Your task to perform on an android device: Open accessibility settings Image 0: 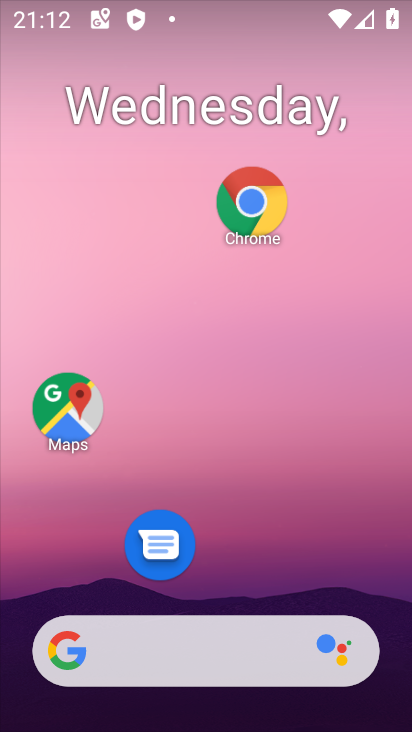
Step 0: drag from (224, 604) to (171, 152)
Your task to perform on an android device: Open accessibility settings Image 1: 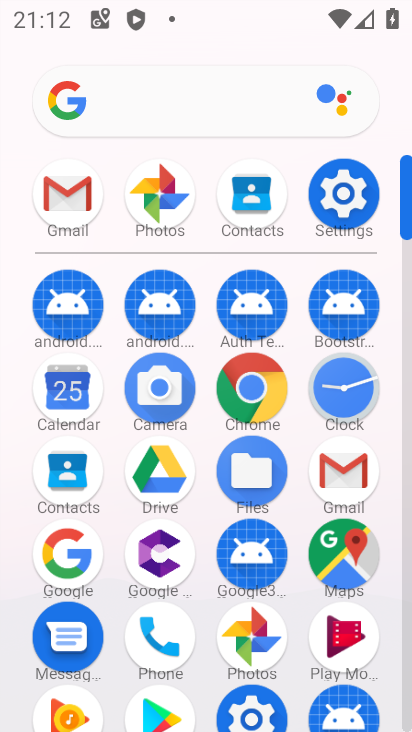
Step 1: click (337, 204)
Your task to perform on an android device: Open accessibility settings Image 2: 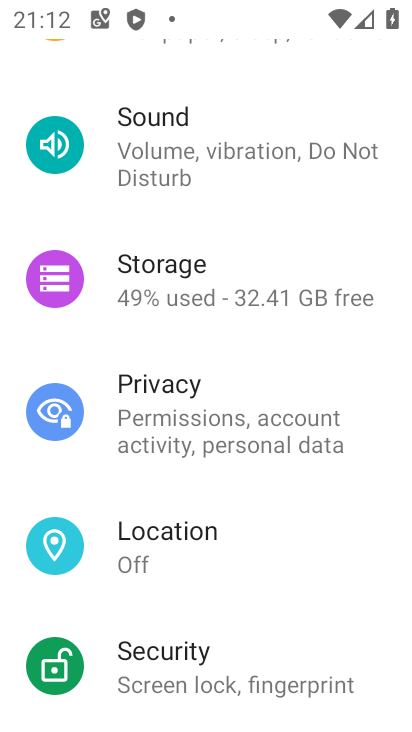
Step 2: drag from (195, 581) to (234, 205)
Your task to perform on an android device: Open accessibility settings Image 3: 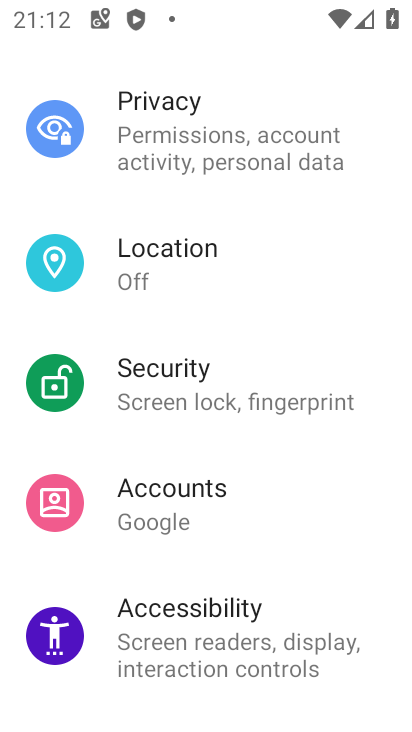
Step 3: click (152, 627)
Your task to perform on an android device: Open accessibility settings Image 4: 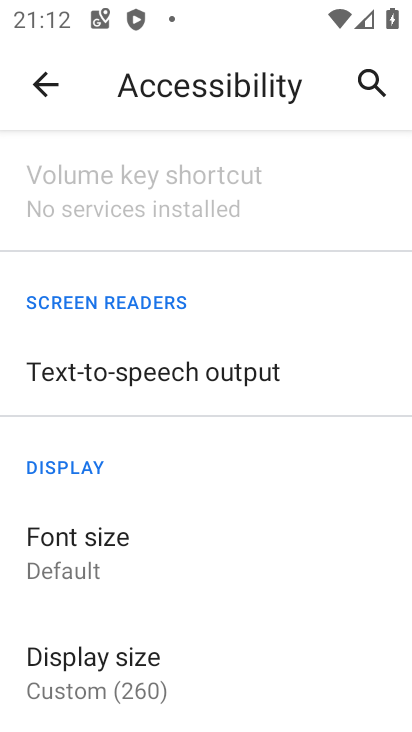
Step 4: task complete